Your task to perform on an android device: open chrome and create a bookmark for the current page Image 0: 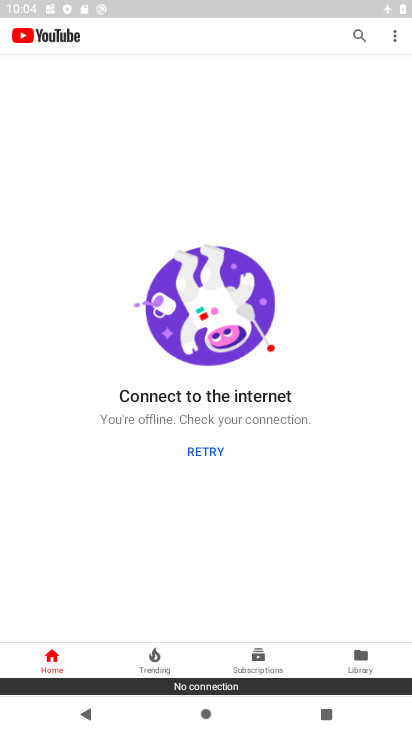
Step 0: press back button
Your task to perform on an android device: open chrome and create a bookmark for the current page Image 1: 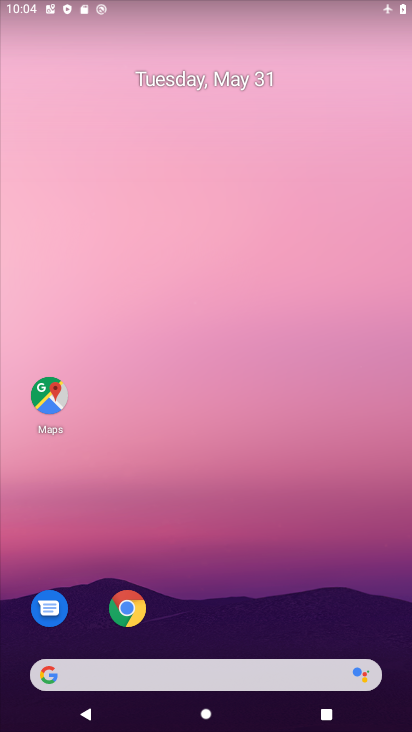
Step 1: click (133, 621)
Your task to perform on an android device: open chrome and create a bookmark for the current page Image 2: 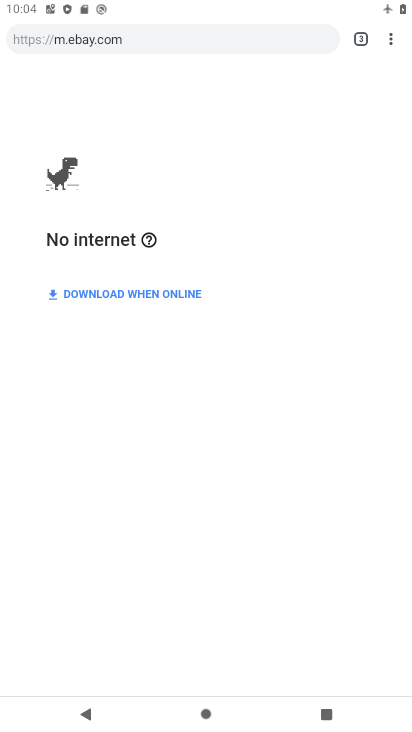
Step 2: task complete